Your task to perform on an android device: open app "Messages" Image 0: 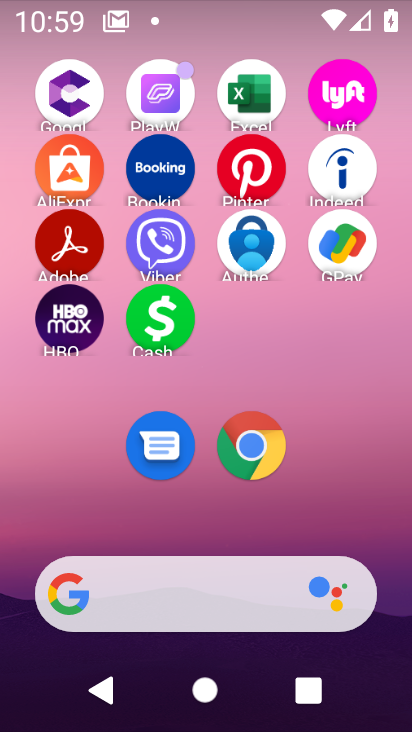
Step 0: drag from (277, 636) to (277, 77)
Your task to perform on an android device: open app "Messages" Image 1: 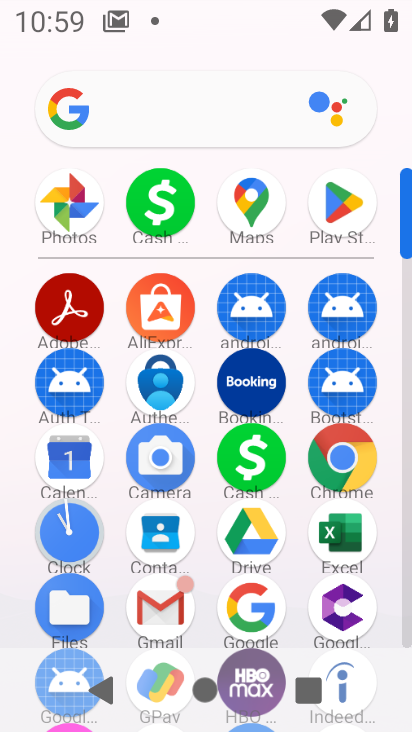
Step 1: drag from (311, 502) to (355, 181)
Your task to perform on an android device: open app "Messages" Image 2: 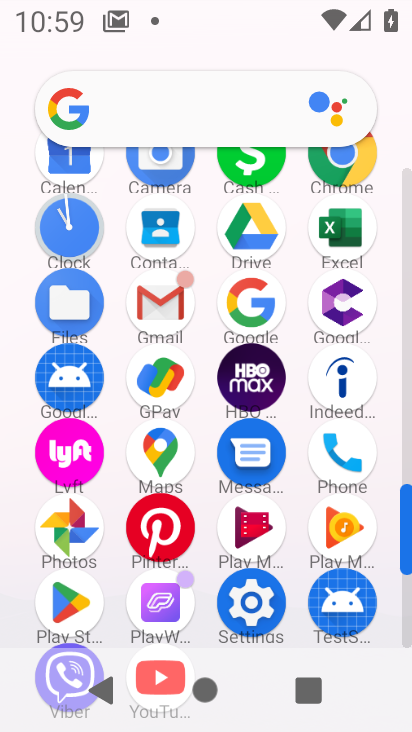
Step 2: click (254, 474)
Your task to perform on an android device: open app "Messages" Image 3: 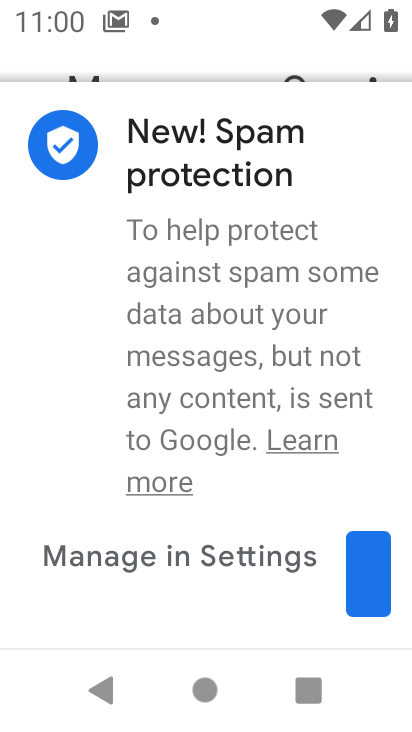
Step 3: task complete